Your task to perform on an android device: Open notification settings Image 0: 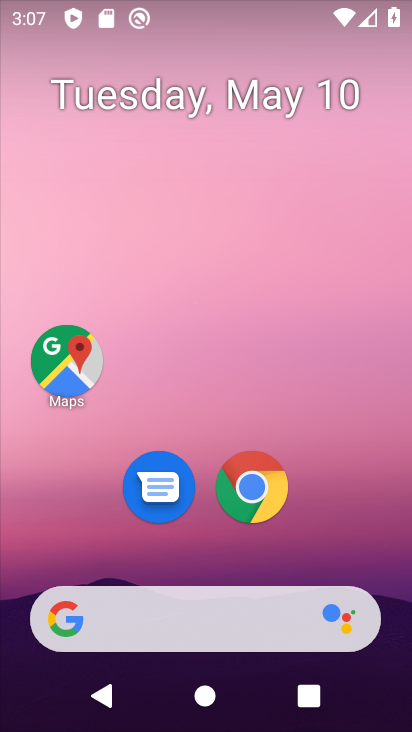
Step 0: drag from (210, 570) to (214, 43)
Your task to perform on an android device: Open notification settings Image 1: 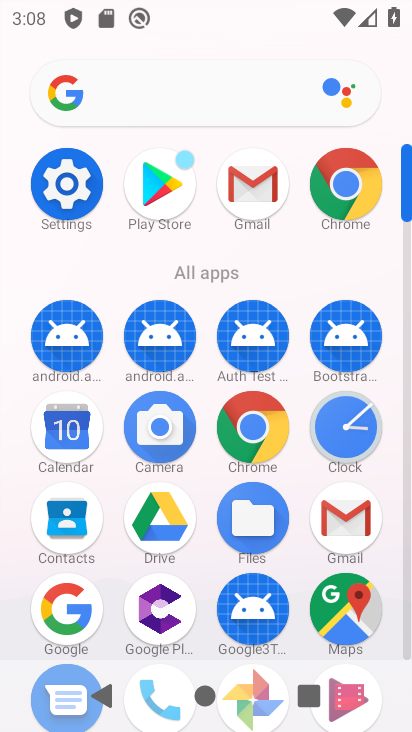
Step 1: click (61, 175)
Your task to perform on an android device: Open notification settings Image 2: 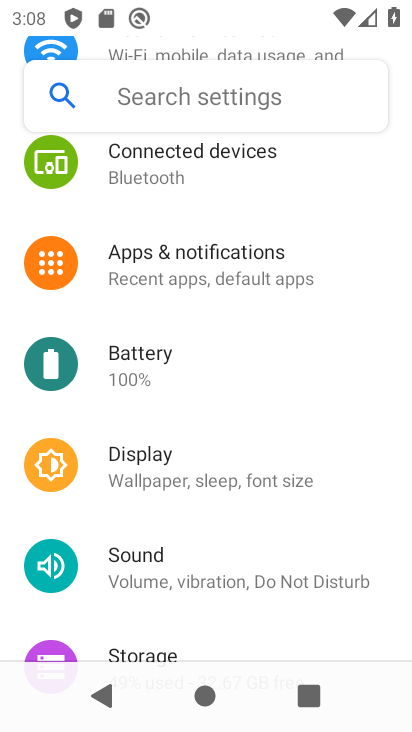
Step 2: click (194, 261)
Your task to perform on an android device: Open notification settings Image 3: 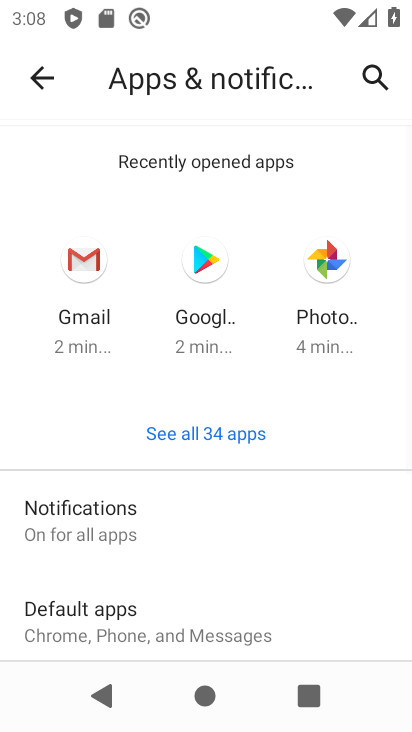
Step 3: click (137, 524)
Your task to perform on an android device: Open notification settings Image 4: 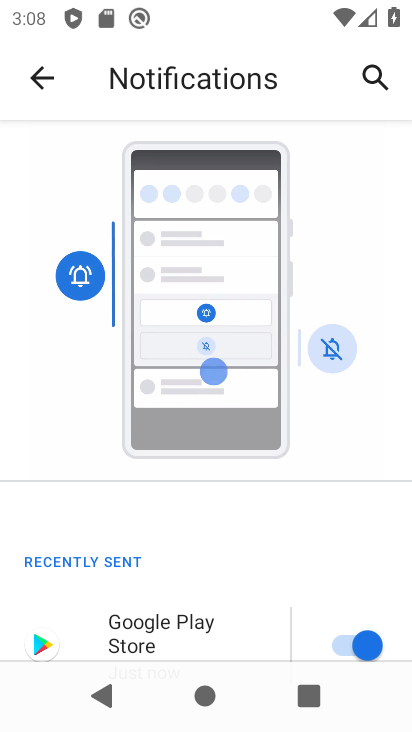
Step 4: drag from (231, 640) to (252, 170)
Your task to perform on an android device: Open notification settings Image 5: 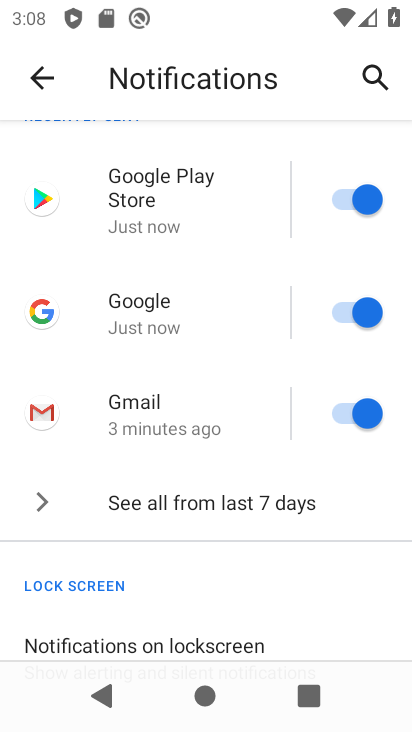
Step 5: drag from (244, 631) to (280, 185)
Your task to perform on an android device: Open notification settings Image 6: 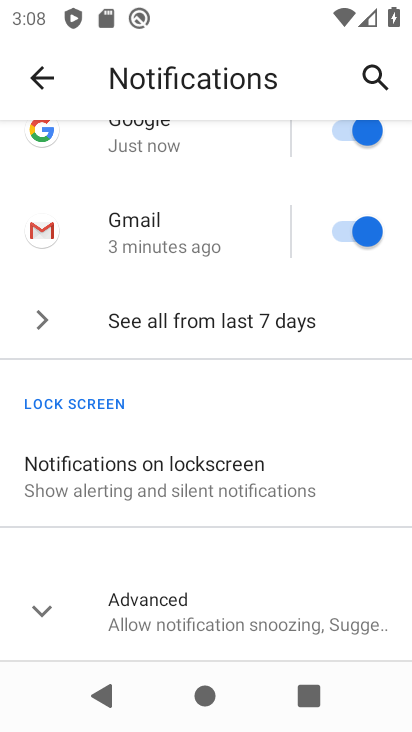
Step 6: click (292, 469)
Your task to perform on an android device: Open notification settings Image 7: 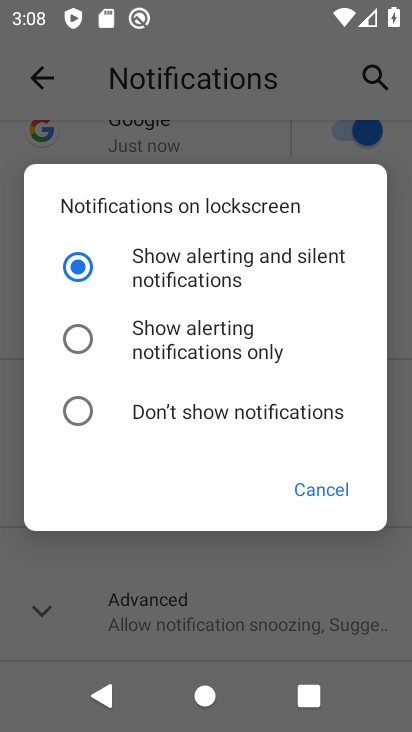
Step 7: click (76, 339)
Your task to perform on an android device: Open notification settings Image 8: 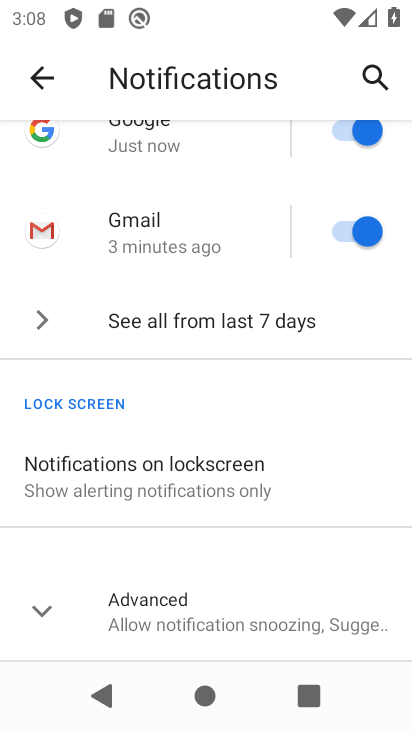
Step 8: task complete